Your task to perform on an android device: find snoozed emails in the gmail app Image 0: 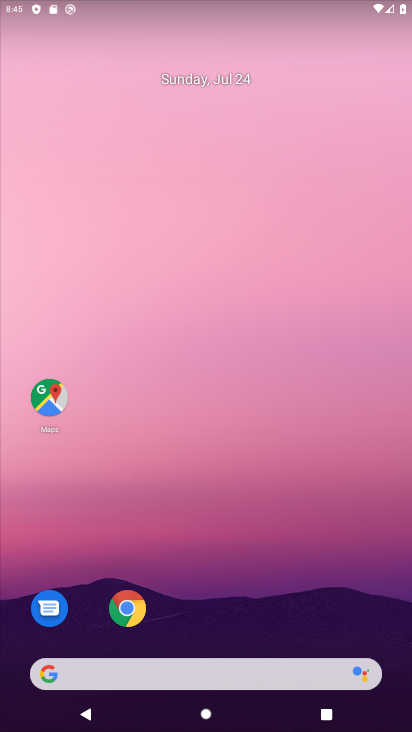
Step 0: drag from (316, 582) to (309, 11)
Your task to perform on an android device: find snoozed emails in the gmail app Image 1: 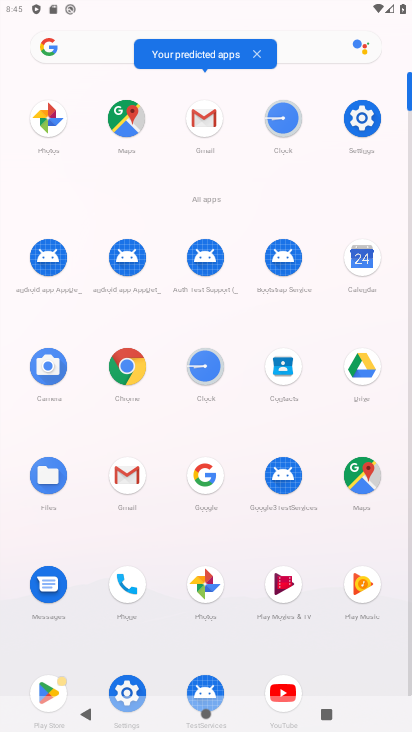
Step 1: click (201, 133)
Your task to perform on an android device: find snoozed emails in the gmail app Image 2: 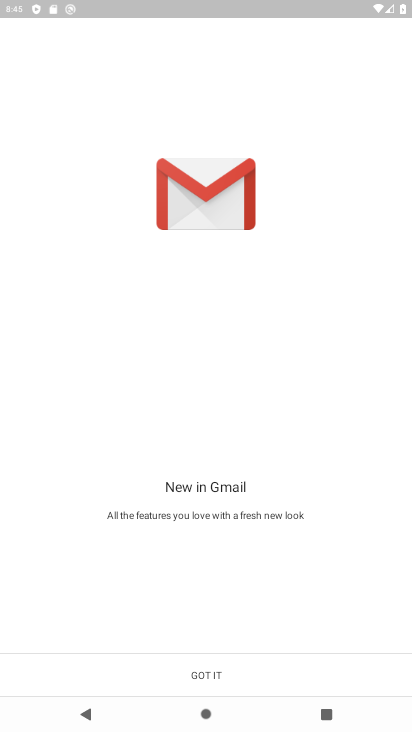
Step 2: click (185, 660)
Your task to perform on an android device: find snoozed emails in the gmail app Image 3: 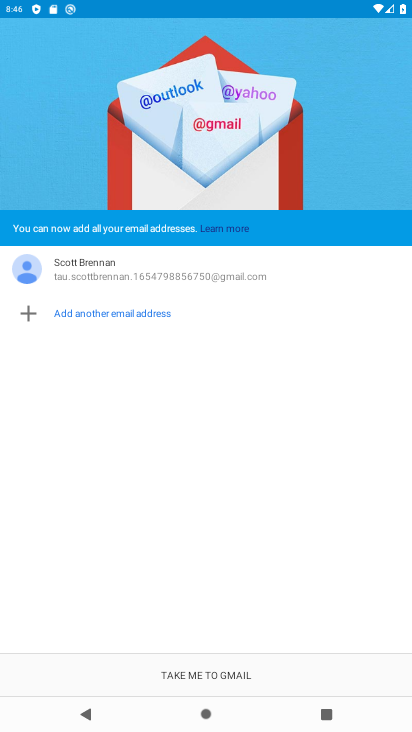
Step 3: click (185, 660)
Your task to perform on an android device: find snoozed emails in the gmail app Image 4: 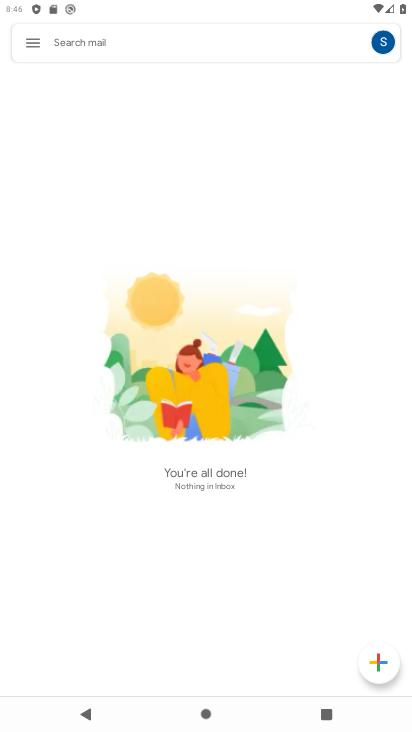
Step 4: click (27, 40)
Your task to perform on an android device: find snoozed emails in the gmail app Image 5: 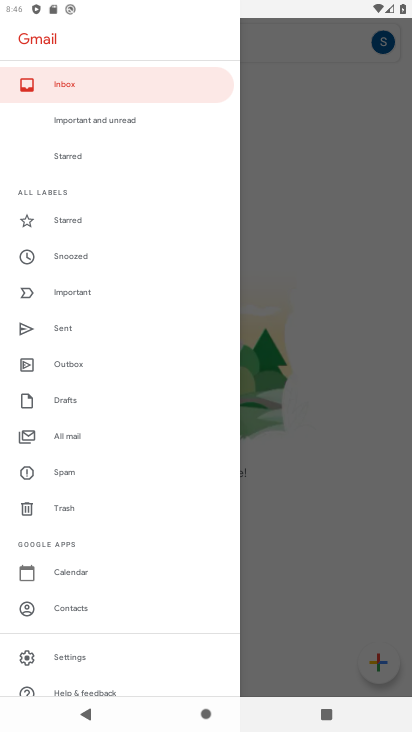
Step 5: click (54, 257)
Your task to perform on an android device: find snoozed emails in the gmail app Image 6: 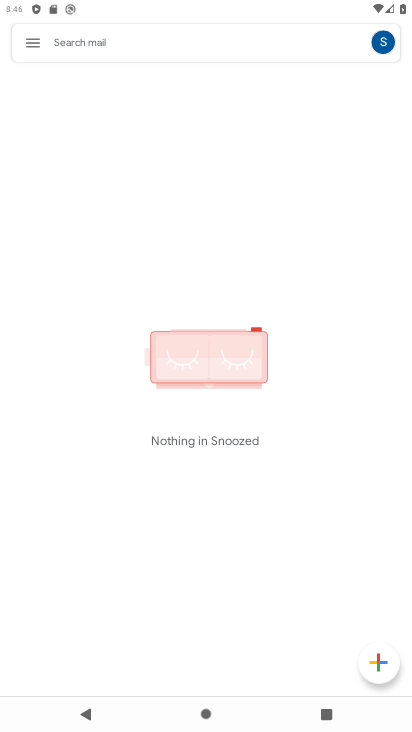
Step 6: task complete